Your task to perform on an android device: Open Reddit.com Image 0: 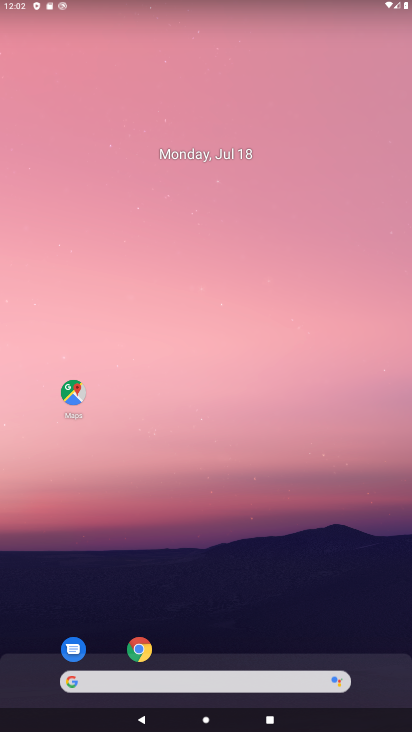
Step 0: drag from (241, 600) to (165, 37)
Your task to perform on an android device: Open Reddit.com Image 1: 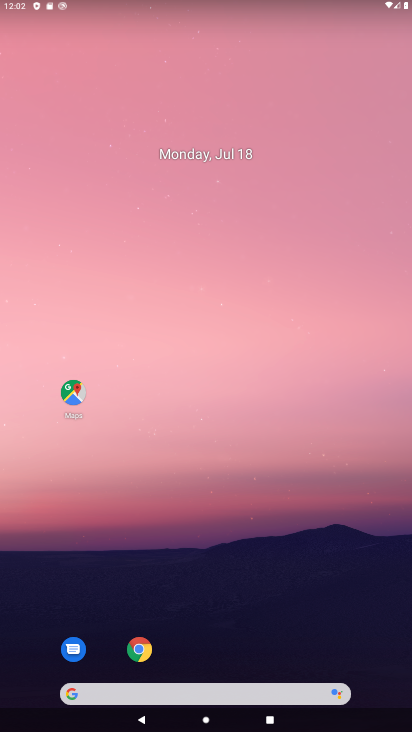
Step 1: click (215, 128)
Your task to perform on an android device: Open Reddit.com Image 2: 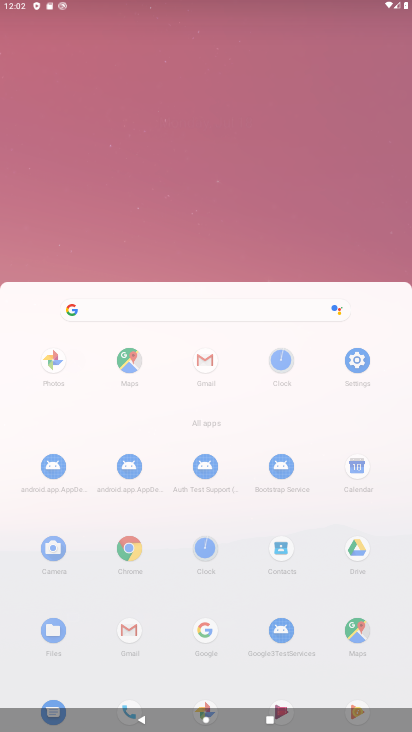
Step 2: drag from (211, 484) to (211, 85)
Your task to perform on an android device: Open Reddit.com Image 3: 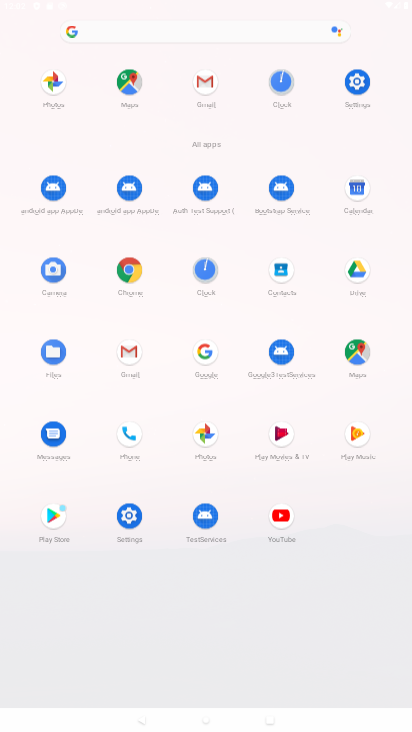
Step 3: drag from (211, 563) to (210, 74)
Your task to perform on an android device: Open Reddit.com Image 4: 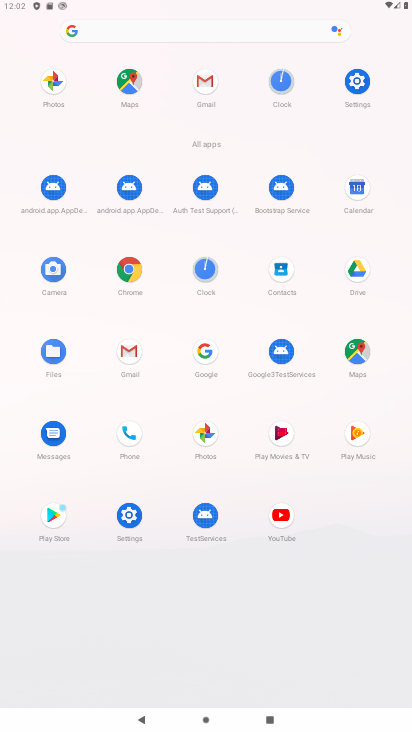
Step 4: click (121, 271)
Your task to perform on an android device: Open Reddit.com Image 5: 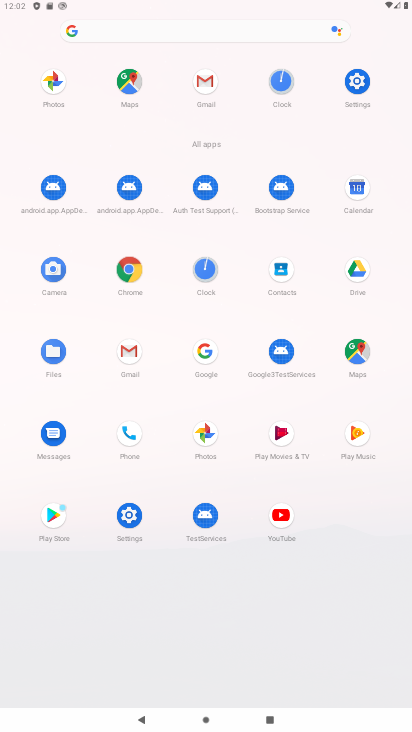
Step 5: click (129, 270)
Your task to perform on an android device: Open Reddit.com Image 6: 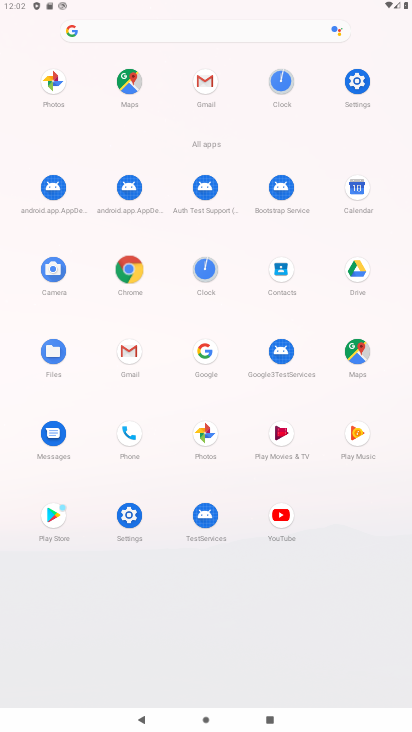
Step 6: click (128, 262)
Your task to perform on an android device: Open Reddit.com Image 7: 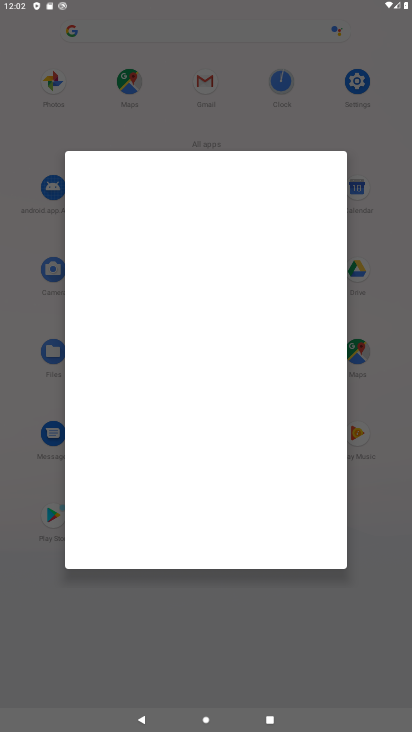
Step 7: drag from (204, 598) to (195, 254)
Your task to perform on an android device: Open Reddit.com Image 8: 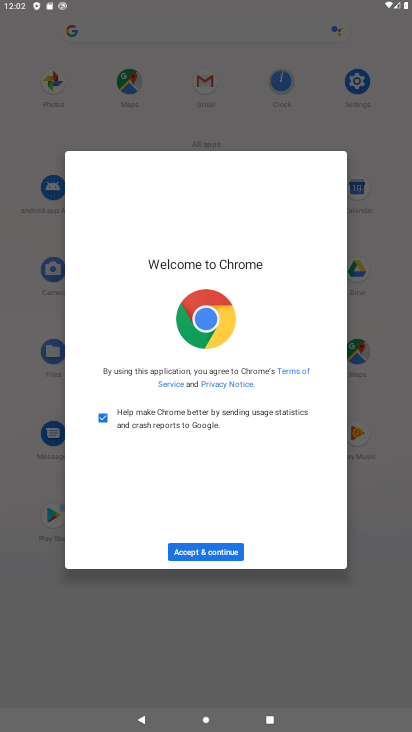
Step 8: click (203, 556)
Your task to perform on an android device: Open Reddit.com Image 9: 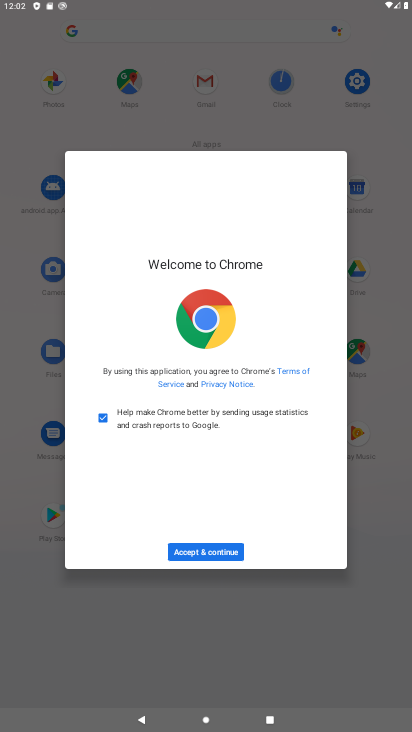
Step 9: click (203, 555)
Your task to perform on an android device: Open Reddit.com Image 10: 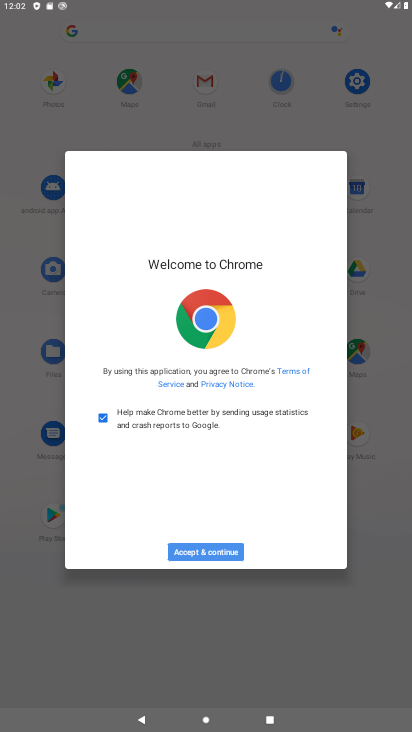
Step 10: click (203, 554)
Your task to perform on an android device: Open Reddit.com Image 11: 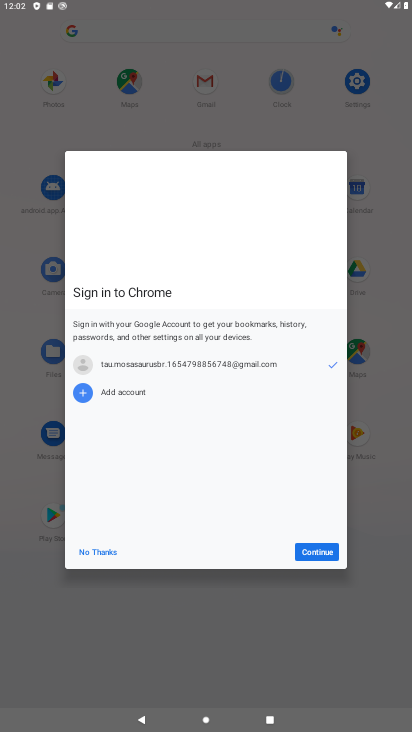
Step 11: click (204, 553)
Your task to perform on an android device: Open Reddit.com Image 12: 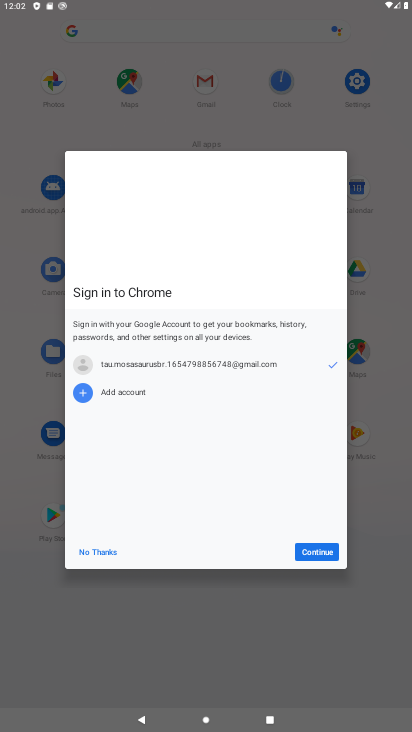
Step 12: click (308, 551)
Your task to perform on an android device: Open Reddit.com Image 13: 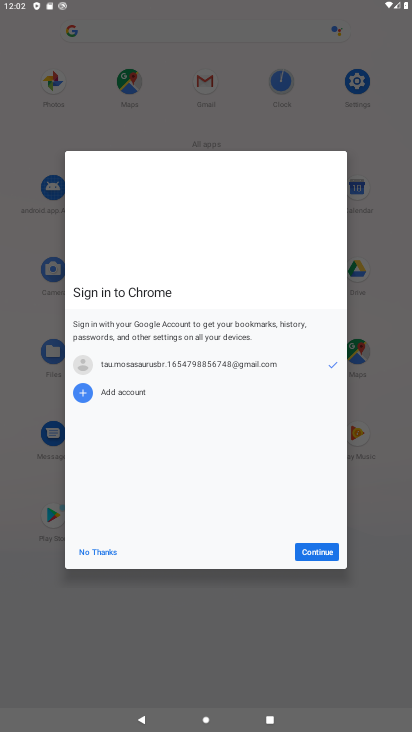
Step 13: click (310, 551)
Your task to perform on an android device: Open Reddit.com Image 14: 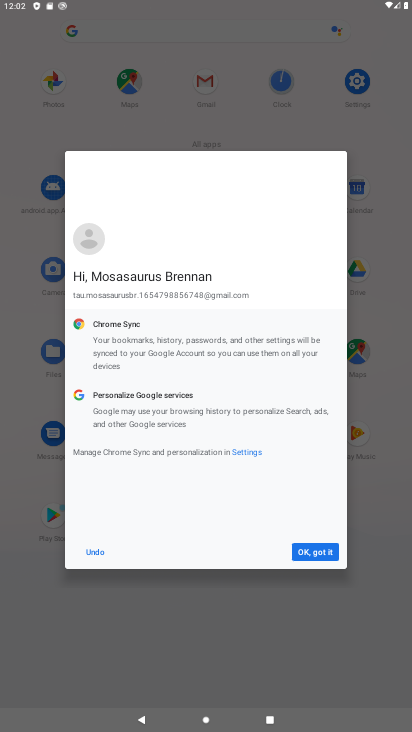
Step 14: click (311, 551)
Your task to perform on an android device: Open Reddit.com Image 15: 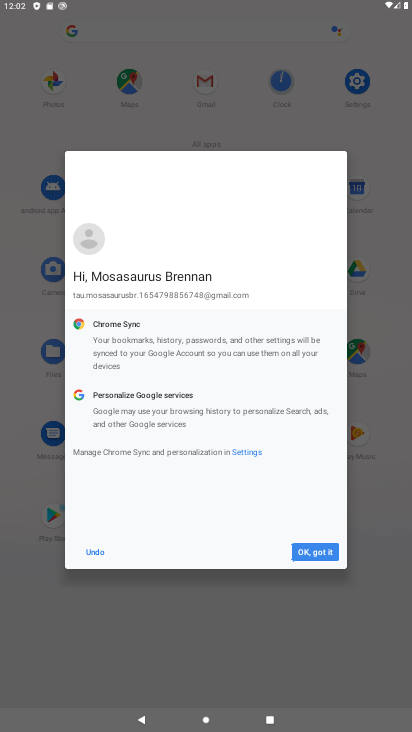
Step 15: click (312, 551)
Your task to perform on an android device: Open Reddit.com Image 16: 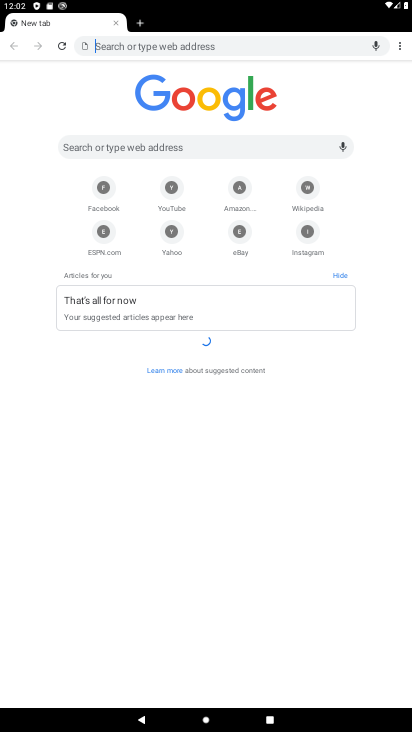
Step 16: click (117, 144)
Your task to perform on an android device: Open Reddit.com Image 17: 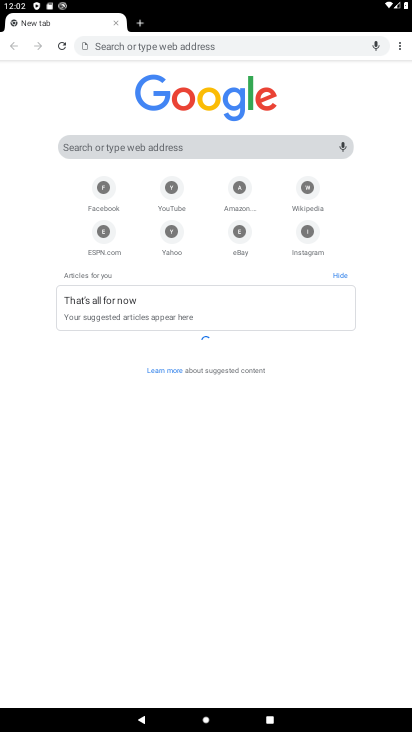
Step 17: click (119, 146)
Your task to perform on an android device: Open Reddit.com Image 18: 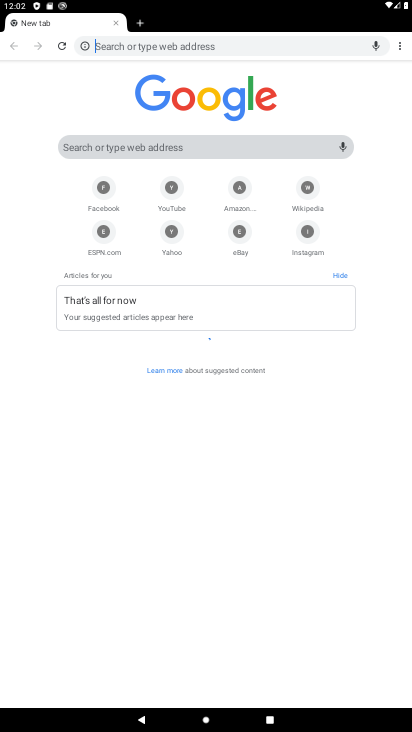
Step 18: click (120, 145)
Your task to perform on an android device: Open Reddit.com Image 19: 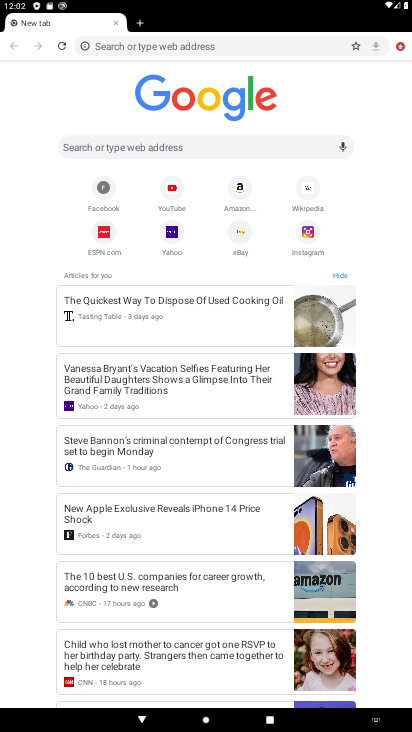
Step 19: click (110, 139)
Your task to perform on an android device: Open Reddit.com Image 20: 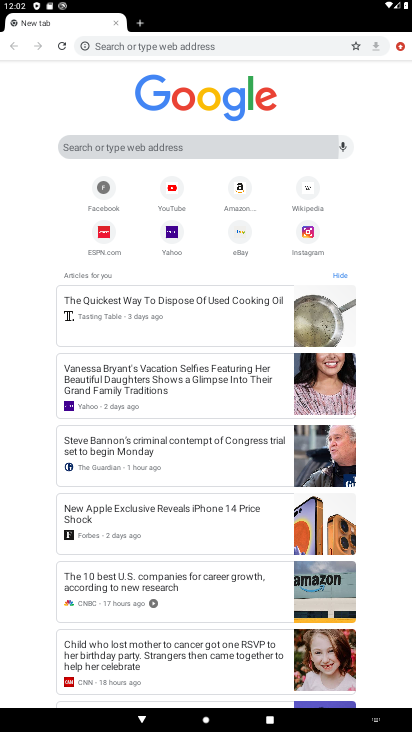
Step 20: click (107, 147)
Your task to perform on an android device: Open Reddit.com Image 21: 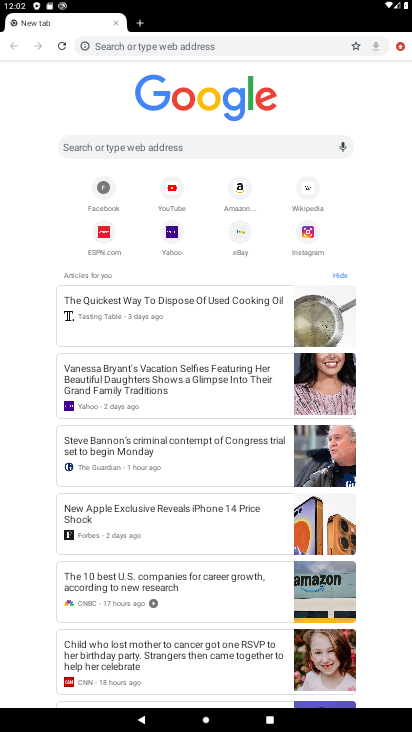
Step 21: click (121, 46)
Your task to perform on an android device: Open Reddit.com Image 22: 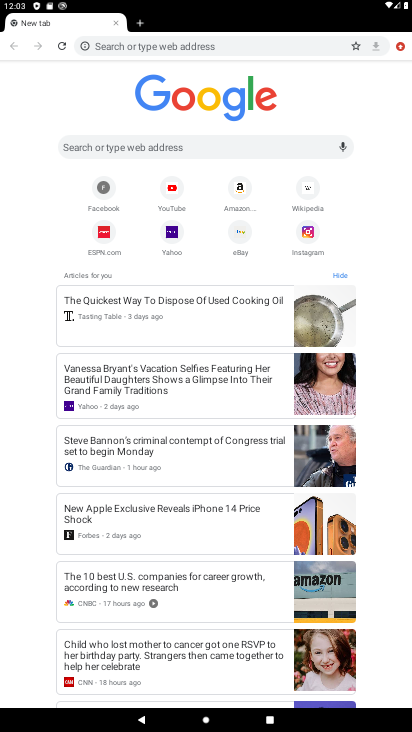
Step 22: click (109, 144)
Your task to perform on an android device: Open Reddit.com Image 23: 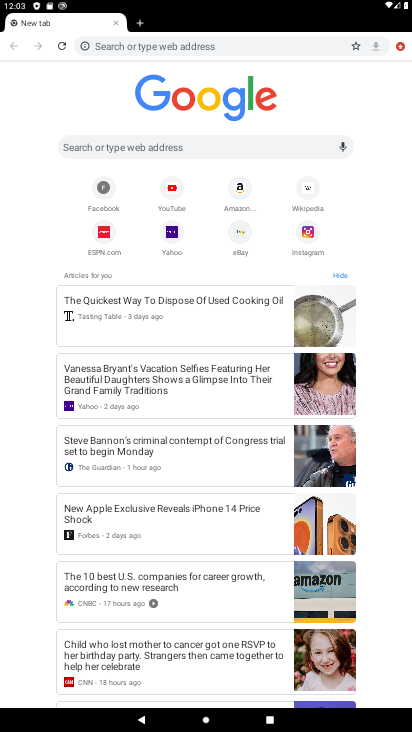
Step 23: click (117, 148)
Your task to perform on an android device: Open Reddit.com Image 24: 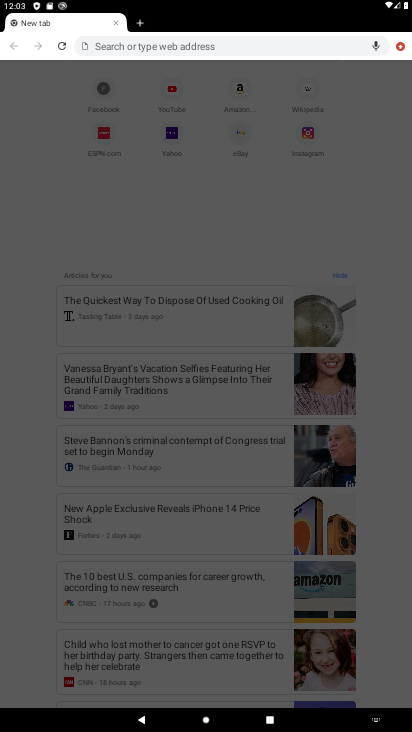
Step 24: click (130, 154)
Your task to perform on an android device: Open Reddit.com Image 25: 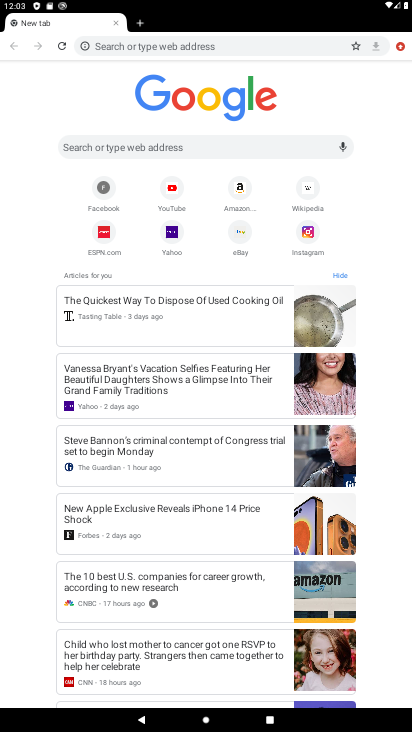
Step 25: click (106, 54)
Your task to perform on an android device: Open Reddit.com Image 26: 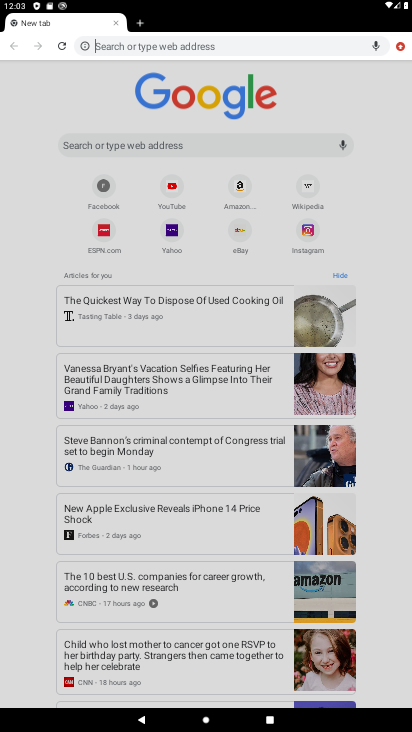
Step 26: click (106, 54)
Your task to perform on an android device: Open Reddit.com Image 27: 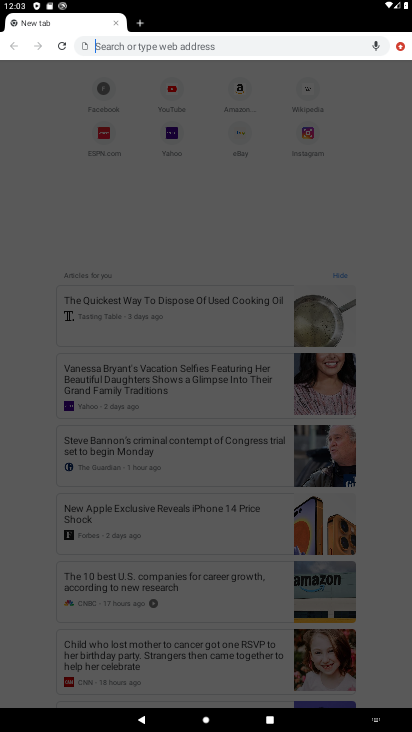
Step 27: type "reddit.com"
Your task to perform on an android device: Open Reddit.com Image 28: 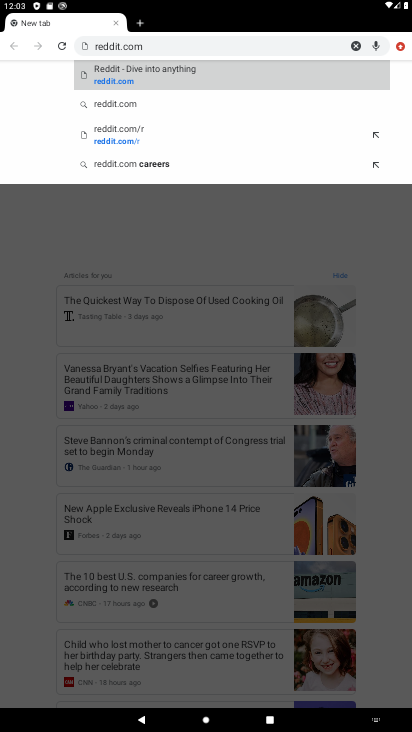
Step 28: click (106, 76)
Your task to perform on an android device: Open Reddit.com Image 29: 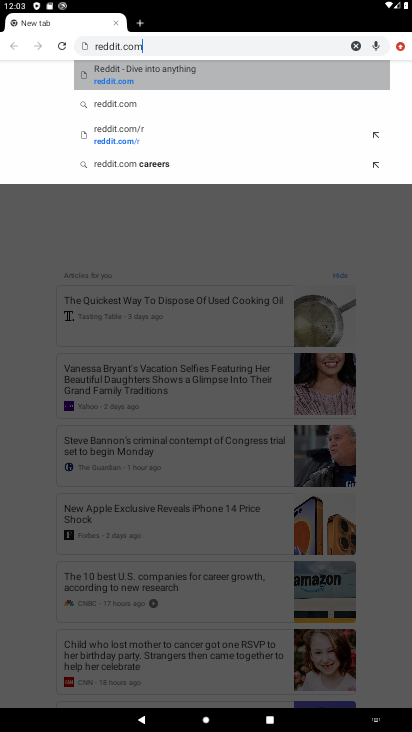
Step 29: click (113, 72)
Your task to perform on an android device: Open Reddit.com Image 30: 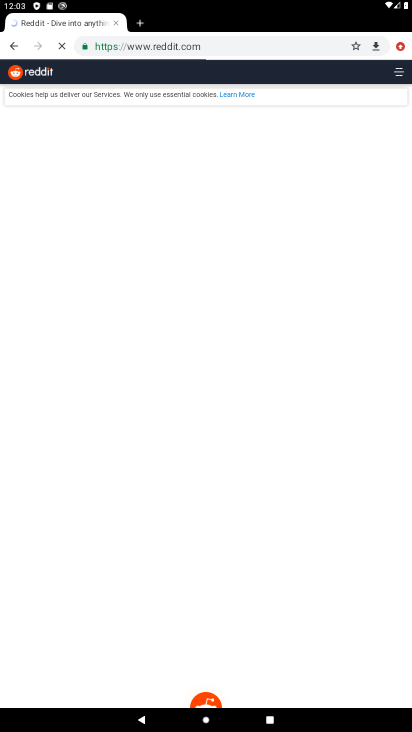
Step 30: task complete